Your task to perform on an android device: turn on notifications settings in the gmail app Image 0: 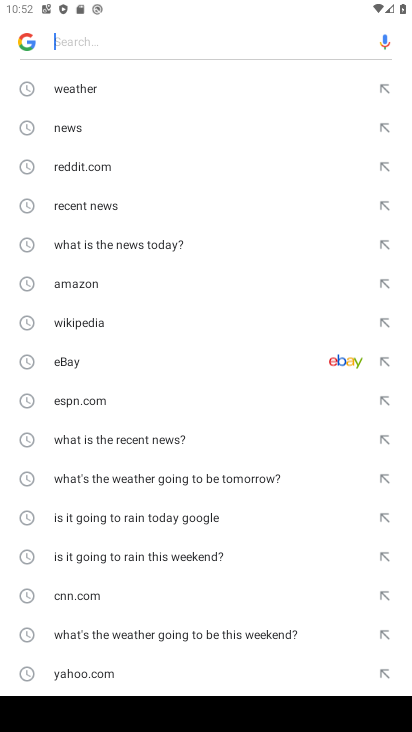
Step 0: press back button
Your task to perform on an android device: turn on notifications settings in the gmail app Image 1: 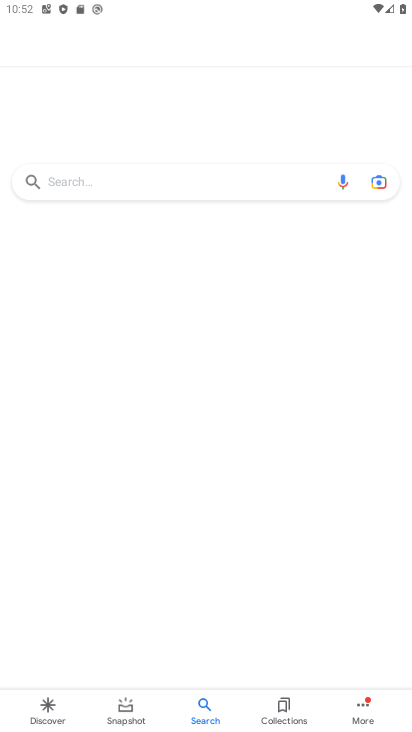
Step 1: press back button
Your task to perform on an android device: turn on notifications settings in the gmail app Image 2: 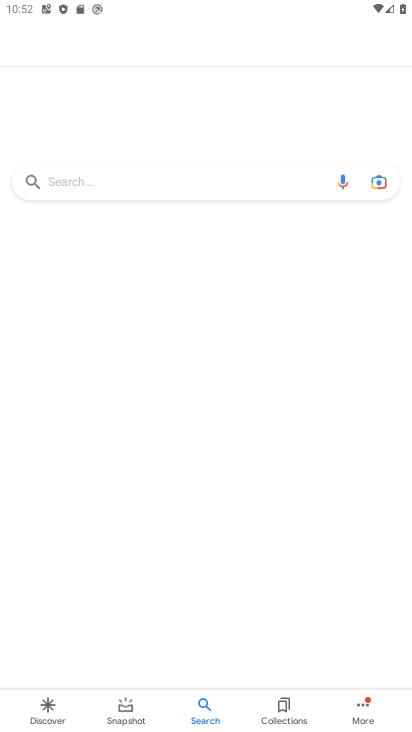
Step 2: press back button
Your task to perform on an android device: turn on notifications settings in the gmail app Image 3: 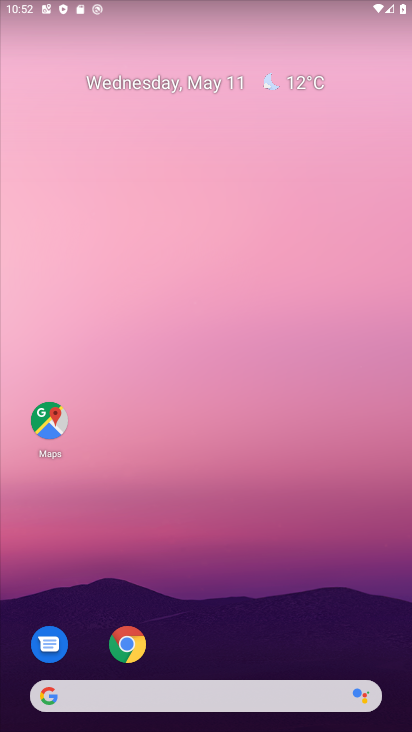
Step 3: drag from (306, 565) to (258, 69)
Your task to perform on an android device: turn on notifications settings in the gmail app Image 4: 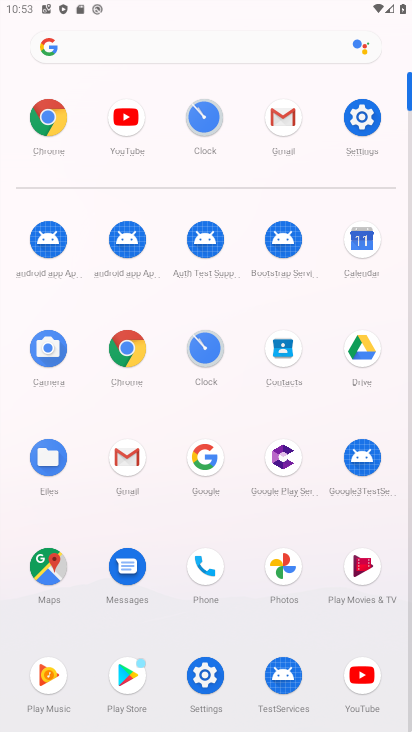
Step 4: click (130, 460)
Your task to perform on an android device: turn on notifications settings in the gmail app Image 5: 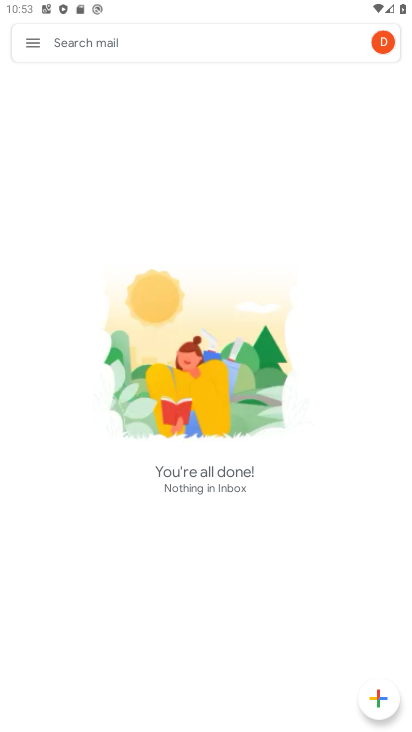
Step 5: click (36, 45)
Your task to perform on an android device: turn on notifications settings in the gmail app Image 6: 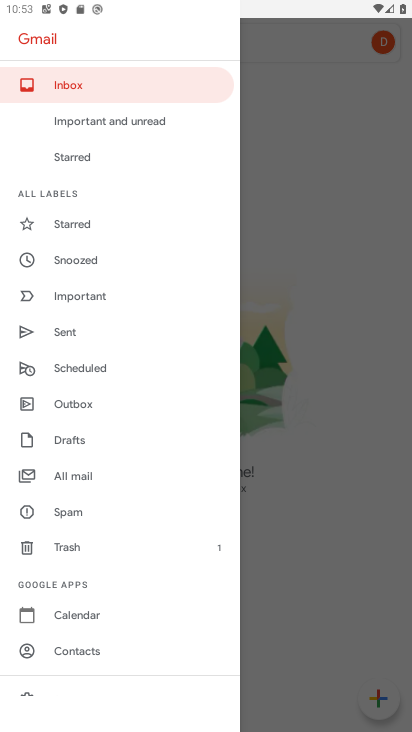
Step 6: drag from (118, 647) to (132, 328)
Your task to perform on an android device: turn on notifications settings in the gmail app Image 7: 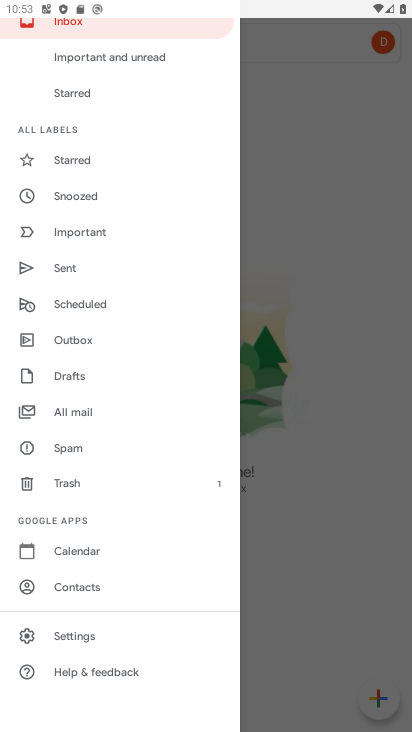
Step 7: click (106, 626)
Your task to perform on an android device: turn on notifications settings in the gmail app Image 8: 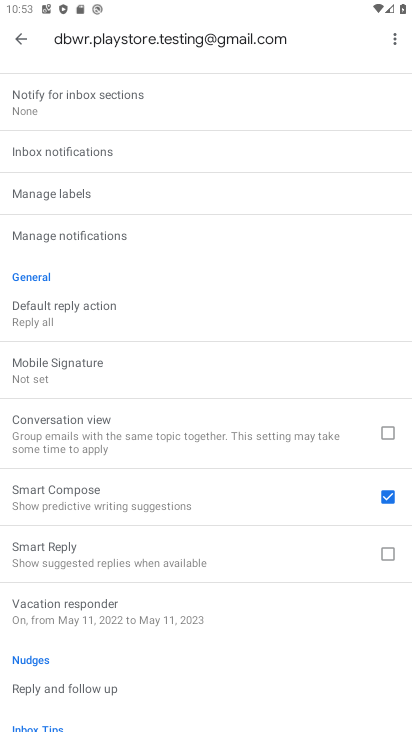
Step 8: drag from (130, 178) to (190, 379)
Your task to perform on an android device: turn on notifications settings in the gmail app Image 9: 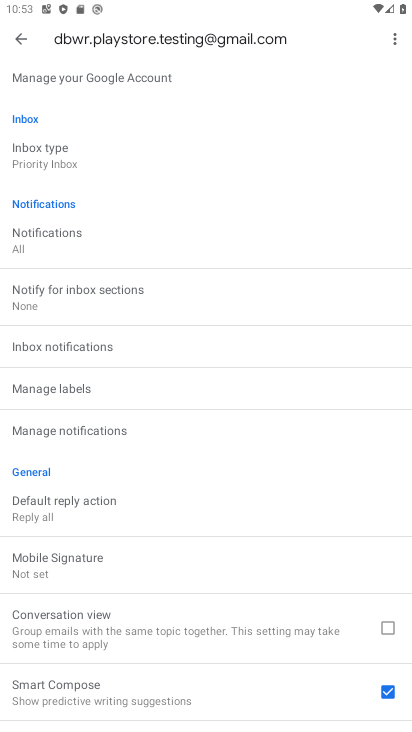
Step 9: click (113, 225)
Your task to perform on an android device: turn on notifications settings in the gmail app Image 10: 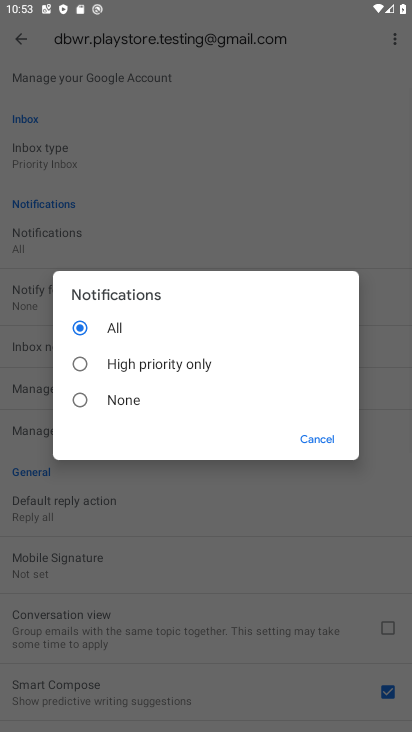
Step 10: click (186, 344)
Your task to perform on an android device: turn on notifications settings in the gmail app Image 11: 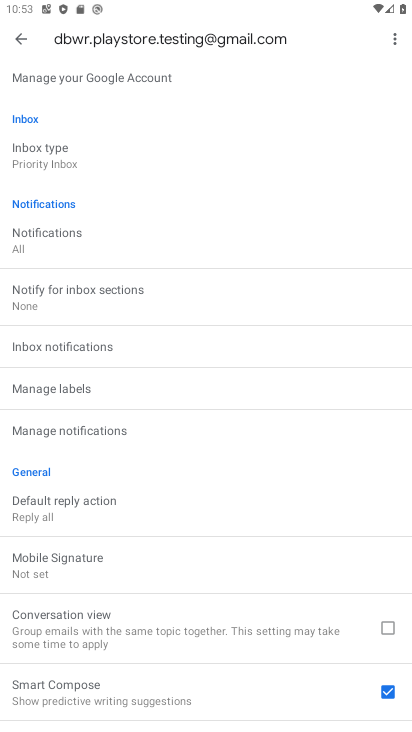
Step 11: task complete